Your task to perform on an android device: View the shopping cart on amazon.com. Search for "duracell triple a" on amazon.com, select the first entry, add it to the cart, then select checkout. Image 0: 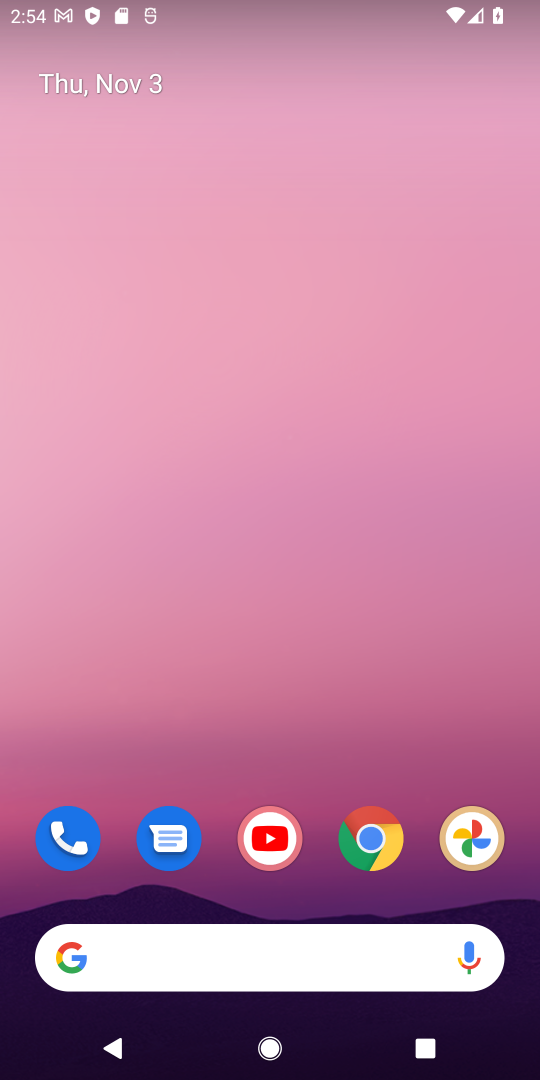
Step 0: drag from (320, 908) to (289, 74)
Your task to perform on an android device: View the shopping cart on amazon.com. Search for "duracell triple a" on amazon.com, select the first entry, add it to the cart, then select checkout. Image 1: 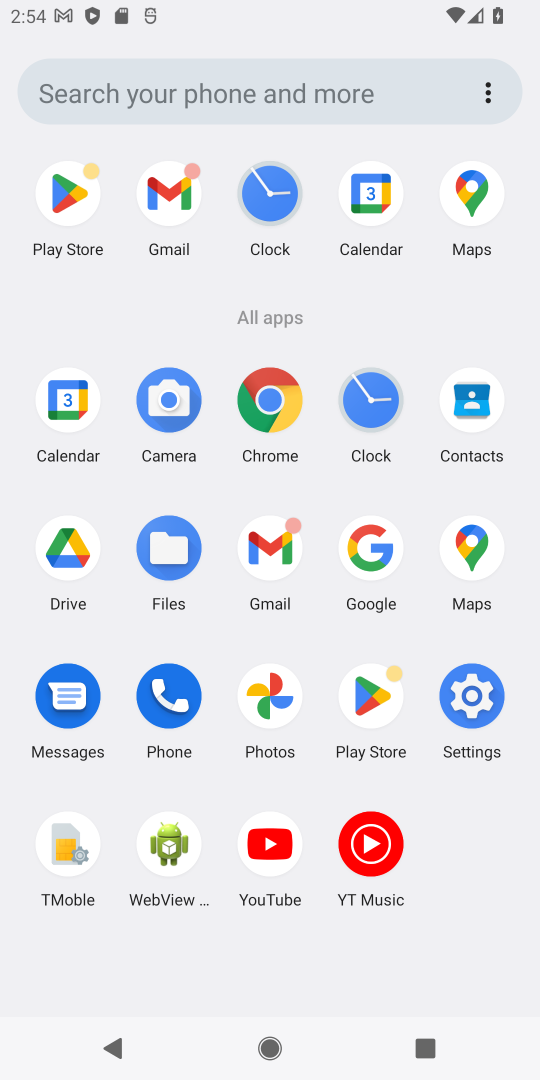
Step 1: click (273, 403)
Your task to perform on an android device: View the shopping cart on amazon.com. Search for "duracell triple a" on amazon.com, select the first entry, add it to the cart, then select checkout. Image 2: 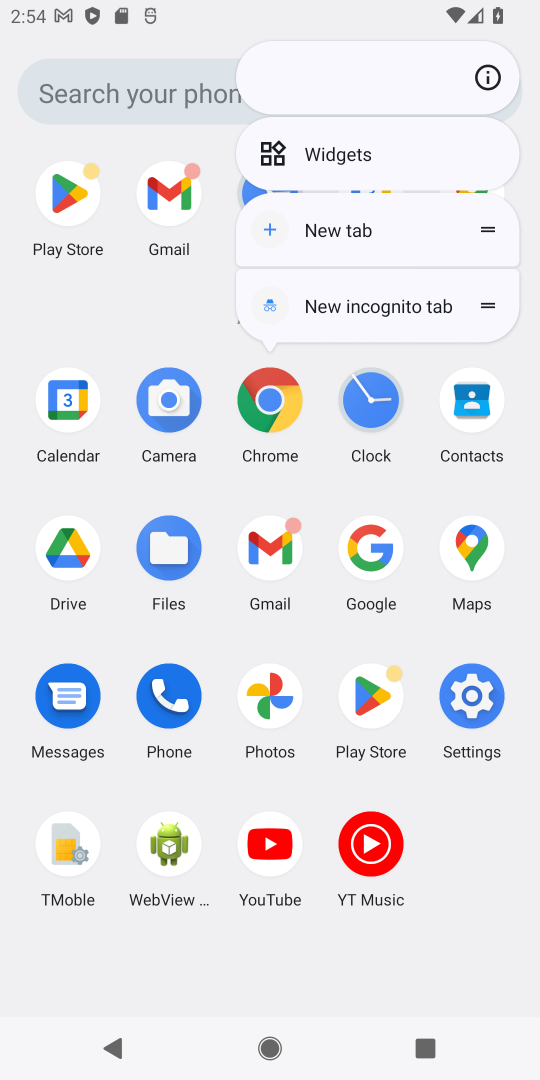
Step 2: click (273, 403)
Your task to perform on an android device: View the shopping cart on amazon.com. Search for "duracell triple a" on amazon.com, select the first entry, add it to the cart, then select checkout. Image 3: 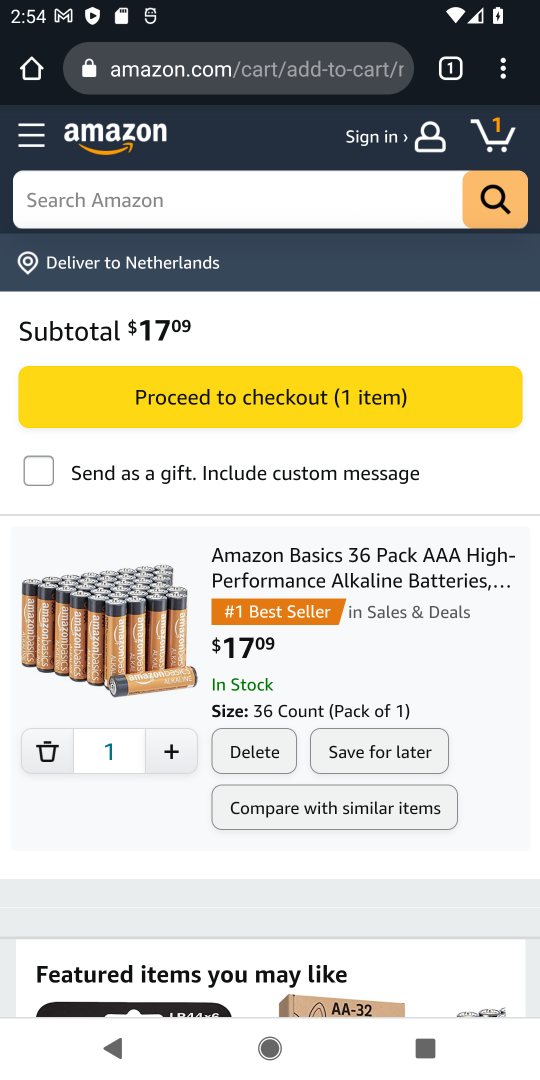
Step 3: click (507, 134)
Your task to perform on an android device: View the shopping cart on amazon.com. Search for "duracell triple a" on amazon.com, select the first entry, add it to the cart, then select checkout. Image 4: 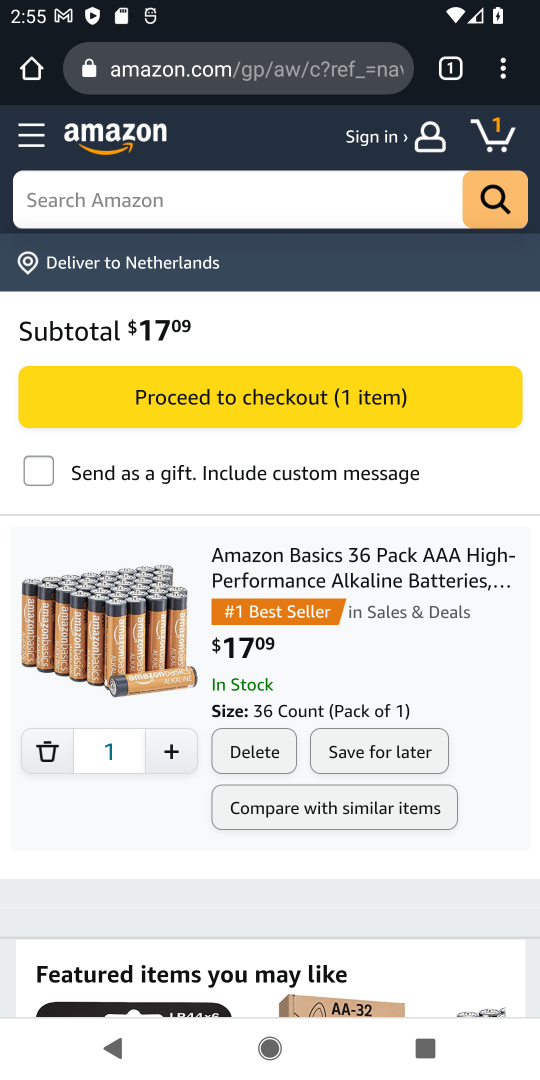
Step 4: click (493, 128)
Your task to perform on an android device: View the shopping cart on amazon.com. Search for "duracell triple a" on amazon.com, select the first entry, add it to the cart, then select checkout. Image 5: 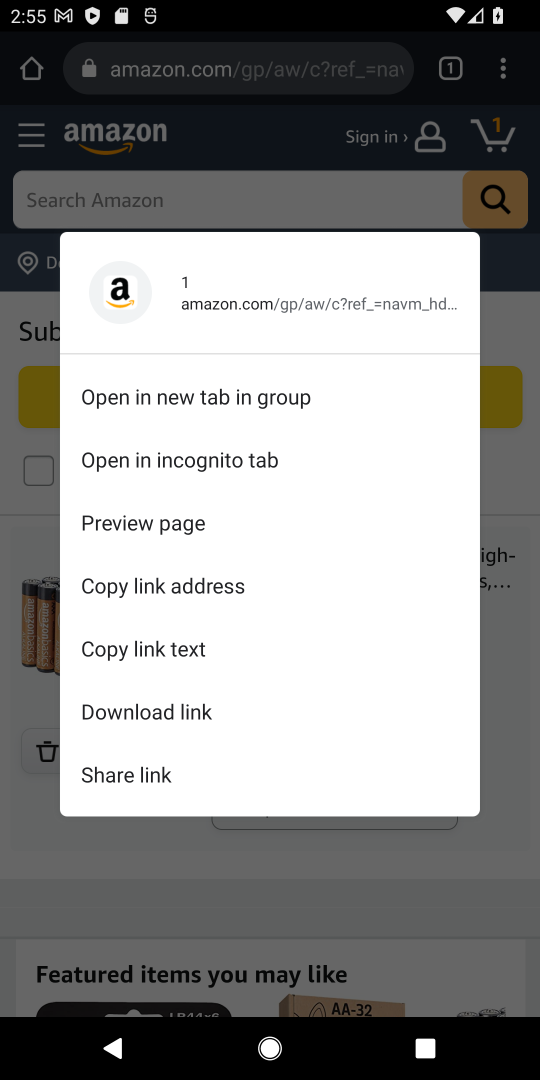
Step 5: click (493, 128)
Your task to perform on an android device: View the shopping cart on amazon.com. Search for "duracell triple a" on amazon.com, select the first entry, add it to the cart, then select checkout. Image 6: 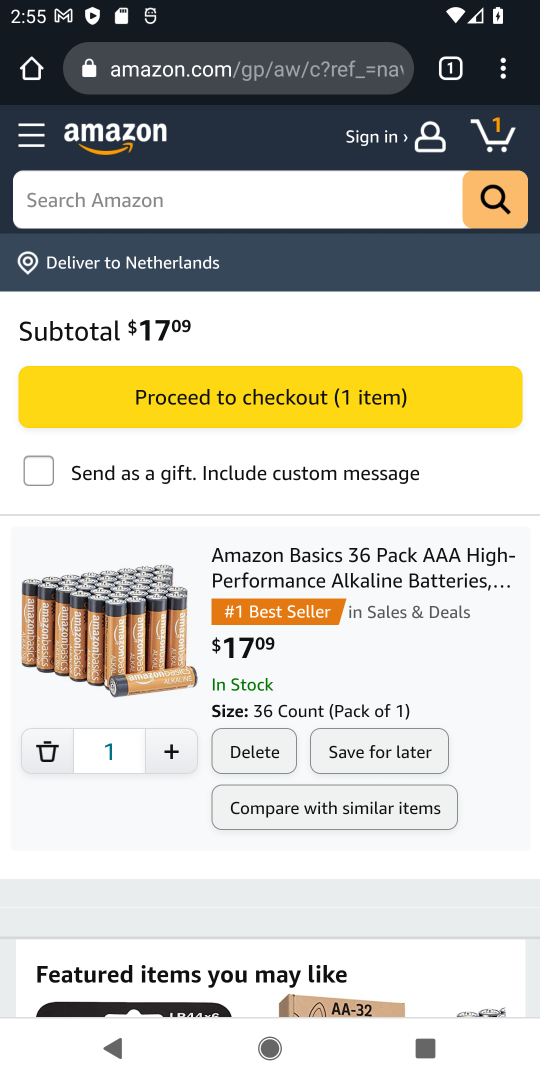
Step 6: click (493, 128)
Your task to perform on an android device: View the shopping cart on amazon.com. Search for "duracell triple a" on amazon.com, select the first entry, add it to the cart, then select checkout. Image 7: 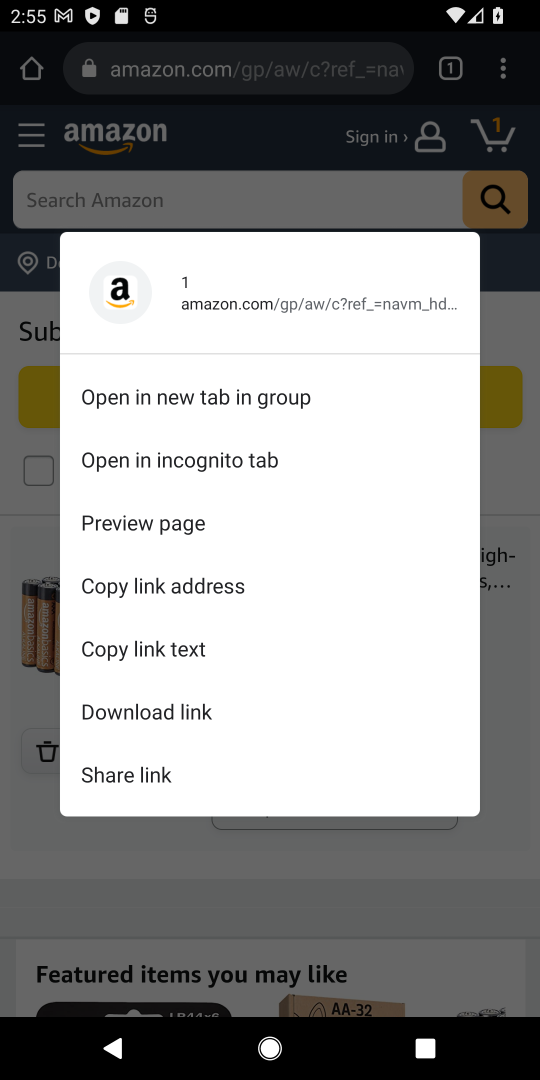
Step 7: click (493, 128)
Your task to perform on an android device: View the shopping cart on amazon.com. Search for "duracell triple a" on amazon.com, select the first entry, add it to the cart, then select checkout. Image 8: 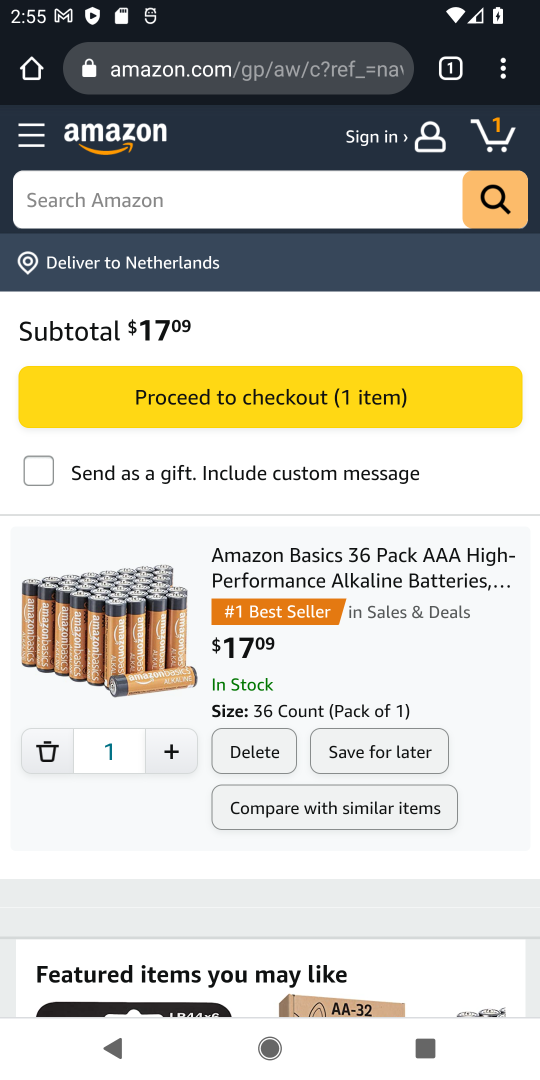
Step 8: click (497, 135)
Your task to perform on an android device: View the shopping cart on amazon.com. Search for "duracell triple a" on amazon.com, select the first entry, add it to the cart, then select checkout. Image 9: 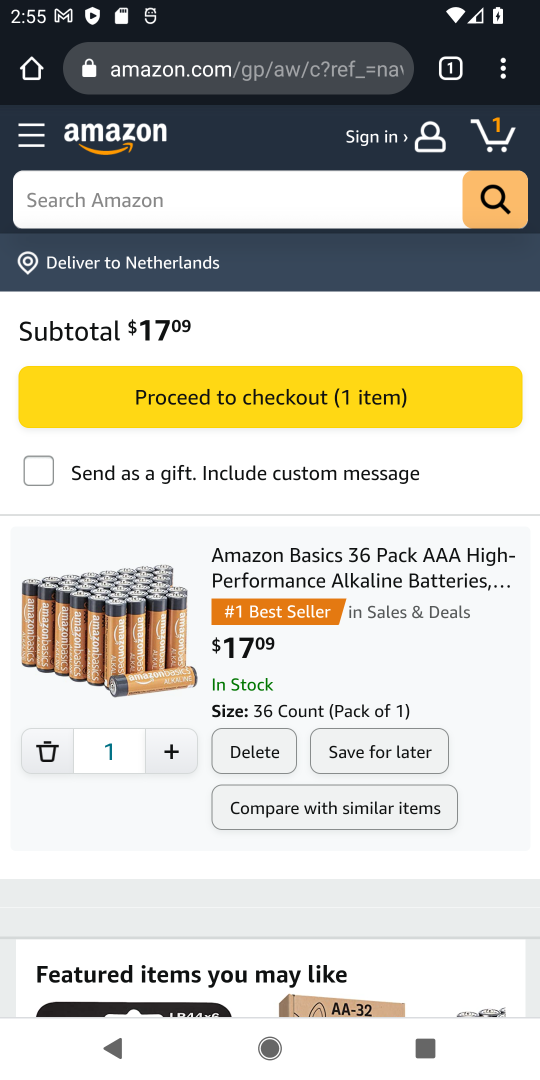
Step 9: click (357, 201)
Your task to perform on an android device: View the shopping cart on amazon.com. Search for "duracell triple a" on amazon.com, select the first entry, add it to the cart, then select checkout. Image 10: 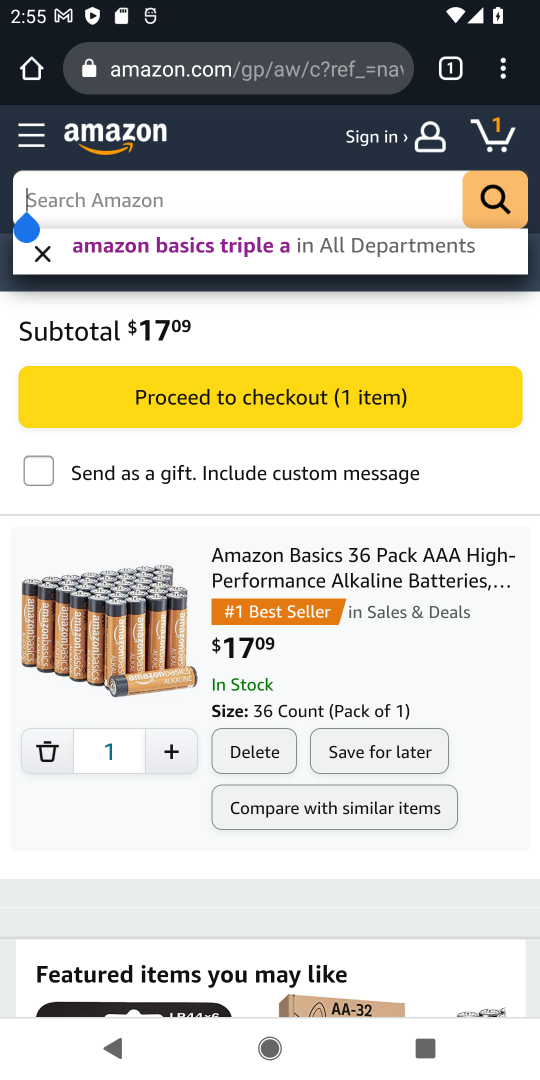
Step 10: type "duracell triple a"
Your task to perform on an android device: View the shopping cart on amazon.com. Search for "duracell triple a" on amazon.com, select the first entry, add it to the cart, then select checkout. Image 11: 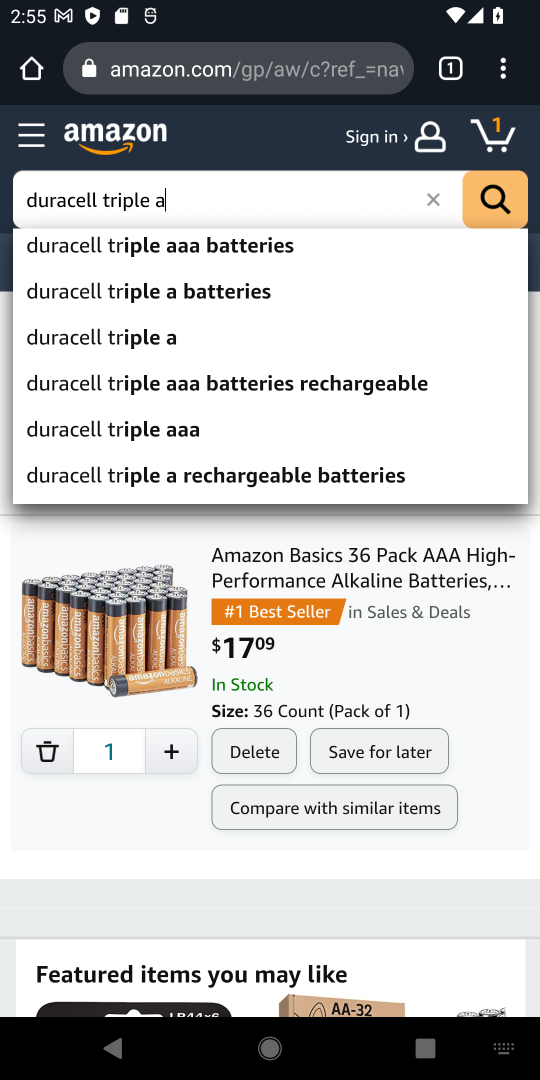
Step 11: press enter
Your task to perform on an android device: View the shopping cart on amazon.com. Search for "duracell triple a" on amazon.com, select the first entry, add it to the cart, then select checkout. Image 12: 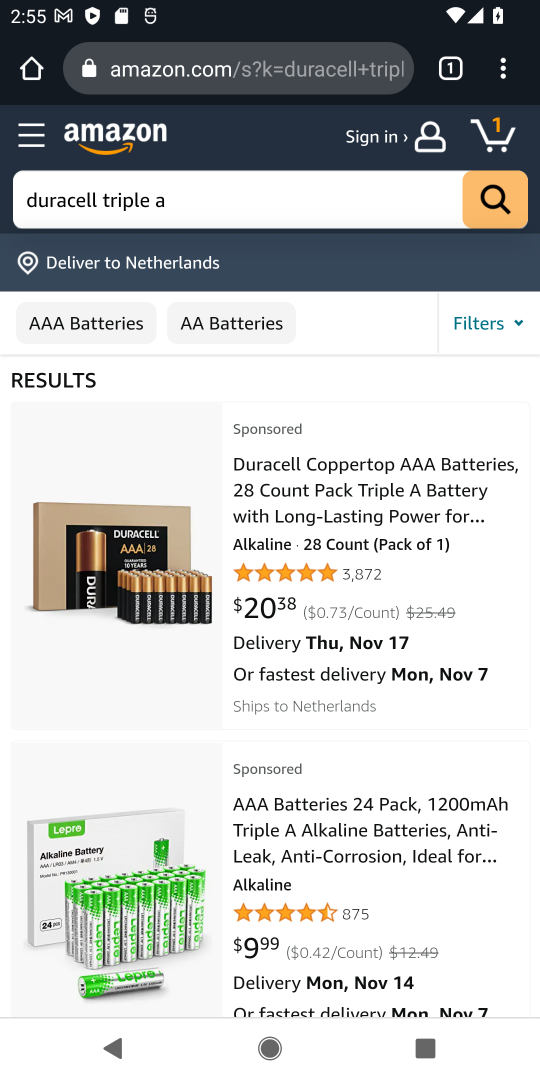
Step 12: drag from (346, 815) to (91, 138)
Your task to perform on an android device: View the shopping cart on amazon.com. Search for "duracell triple a" on amazon.com, select the first entry, add it to the cart, then select checkout. Image 13: 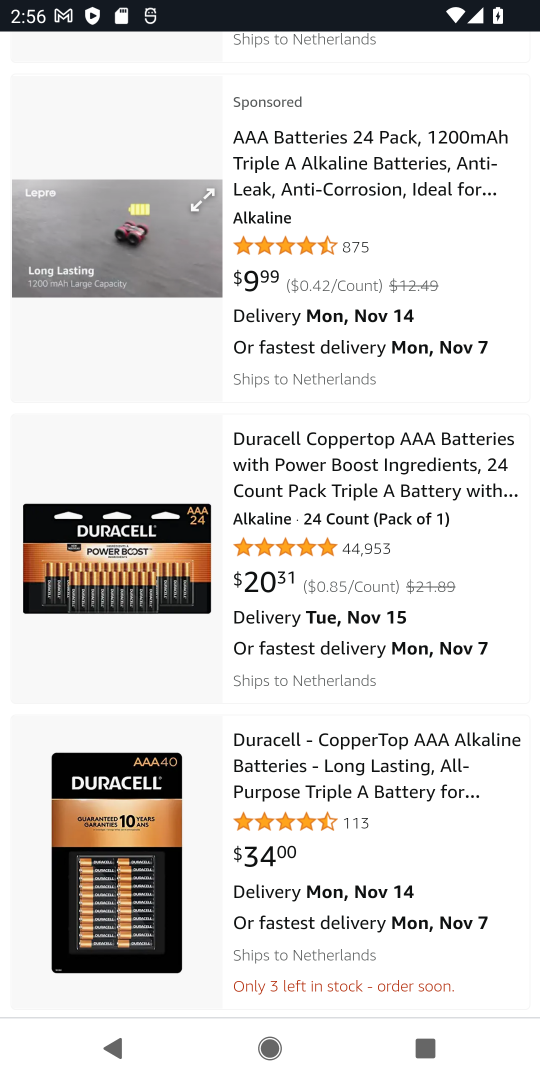
Step 13: click (356, 472)
Your task to perform on an android device: View the shopping cart on amazon.com. Search for "duracell triple a" on amazon.com, select the first entry, add it to the cart, then select checkout. Image 14: 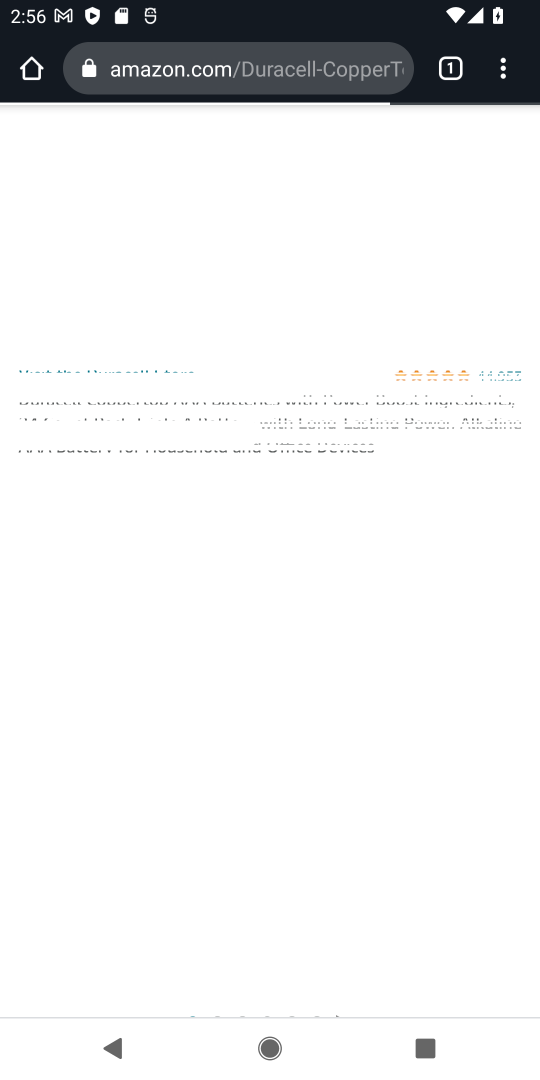
Step 14: drag from (311, 715) to (240, 76)
Your task to perform on an android device: View the shopping cart on amazon.com. Search for "duracell triple a" on amazon.com, select the first entry, add it to the cart, then select checkout. Image 15: 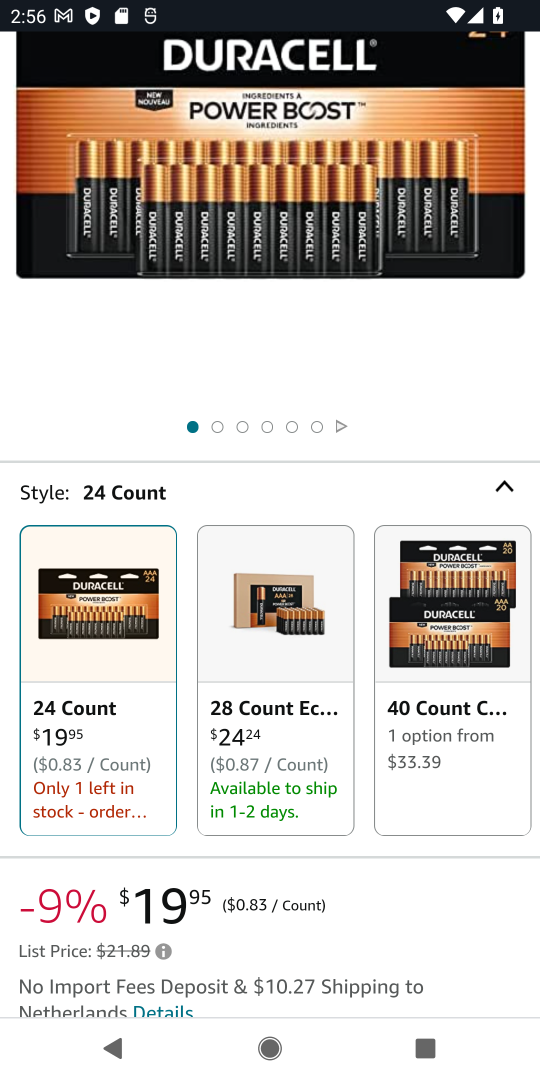
Step 15: drag from (326, 919) to (333, 203)
Your task to perform on an android device: View the shopping cart on amazon.com. Search for "duracell triple a" on amazon.com, select the first entry, add it to the cart, then select checkout. Image 16: 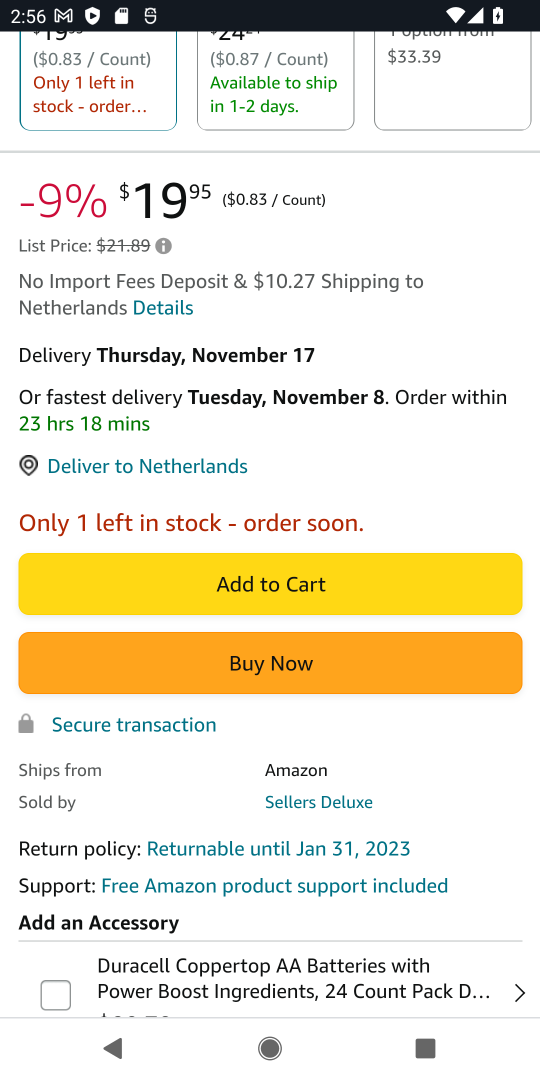
Step 16: click (261, 589)
Your task to perform on an android device: View the shopping cart on amazon.com. Search for "duracell triple a" on amazon.com, select the first entry, add it to the cart, then select checkout. Image 17: 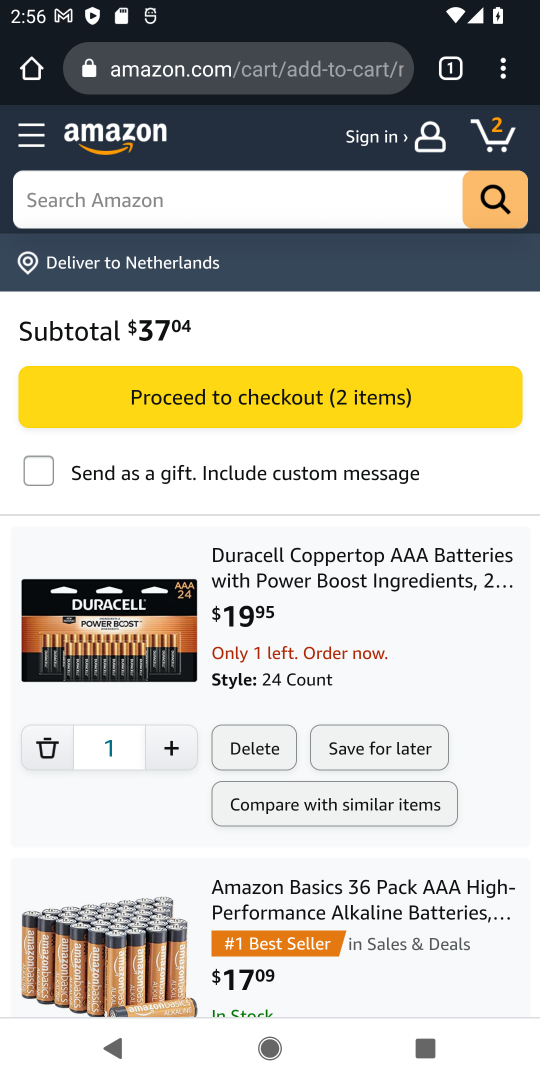
Step 17: click (298, 396)
Your task to perform on an android device: View the shopping cart on amazon.com. Search for "duracell triple a" on amazon.com, select the first entry, add it to the cart, then select checkout. Image 18: 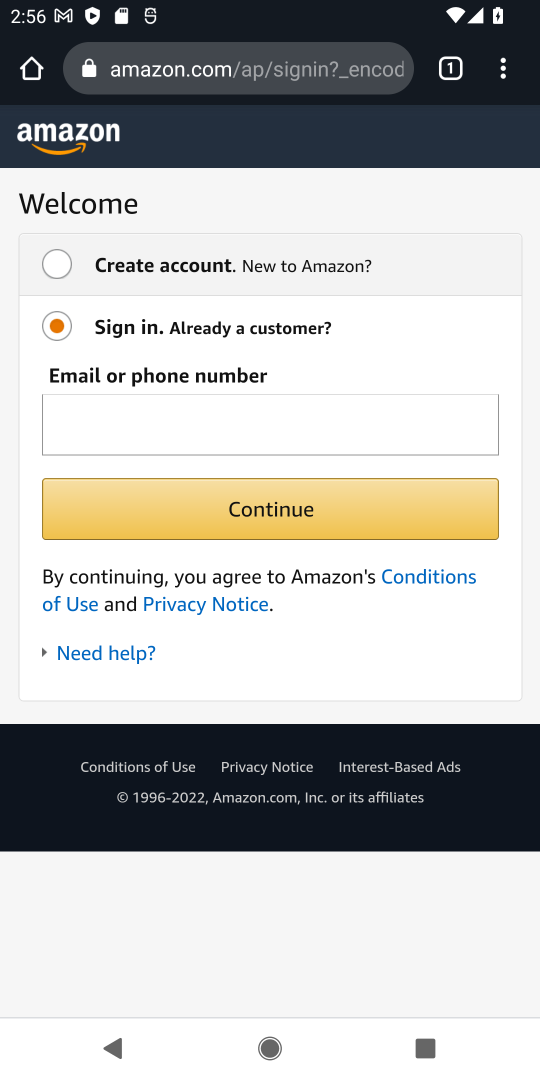
Step 18: task complete